Your task to perform on an android device: Search for Mexican restaurants on Maps Image 0: 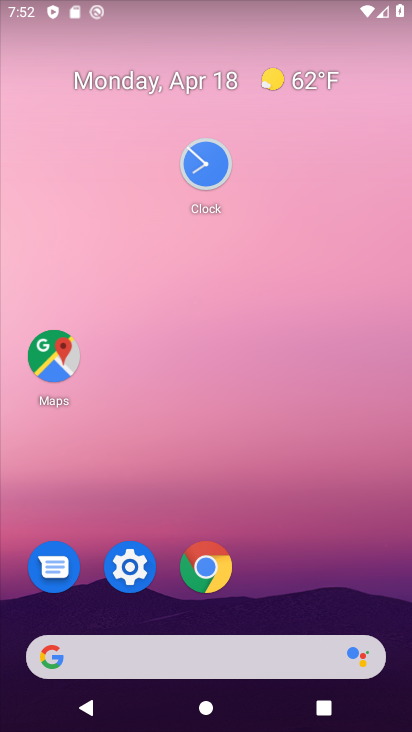
Step 0: drag from (308, 610) to (208, 7)
Your task to perform on an android device: Search for Mexican restaurants on Maps Image 1: 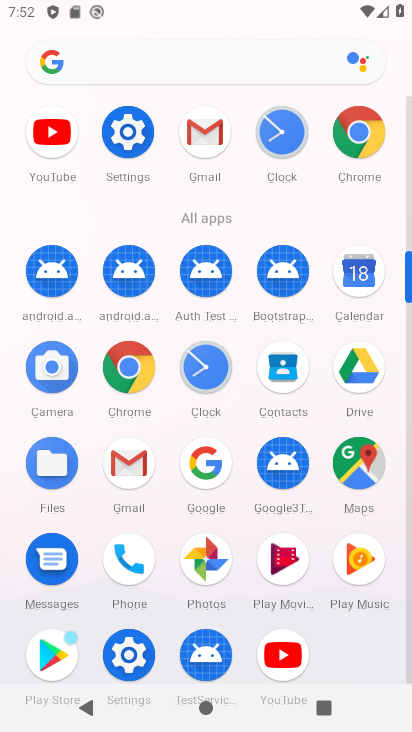
Step 1: click (363, 464)
Your task to perform on an android device: Search for Mexican restaurants on Maps Image 2: 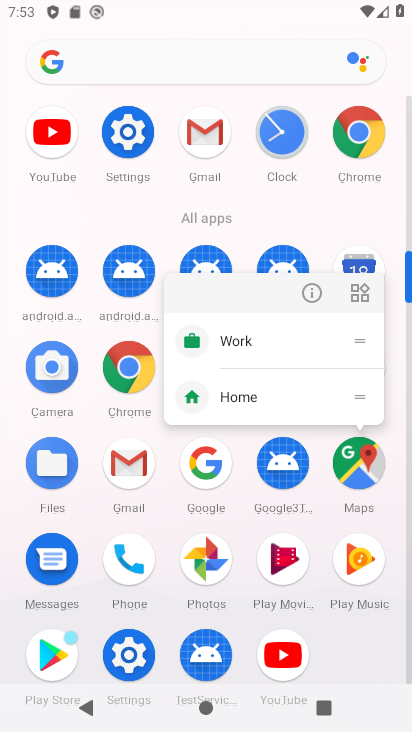
Step 2: click (276, 190)
Your task to perform on an android device: Search for Mexican restaurants on Maps Image 3: 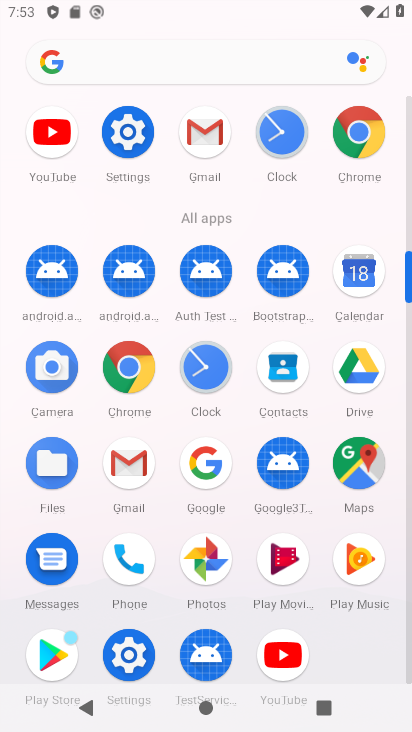
Step 3: click (366, 466)
Your task to perform on an android device: Search for Mexican restaurants on Maps Image 4: 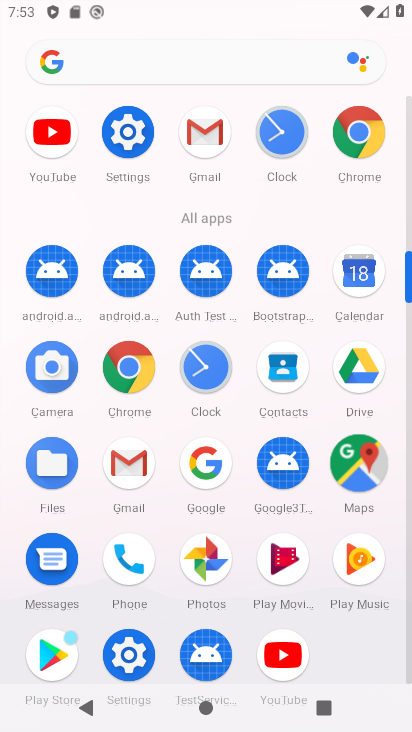
Step 4: click (366, 466)
Your task to perform on an android device: Search for Mexican restaurants on Maps Image 5: 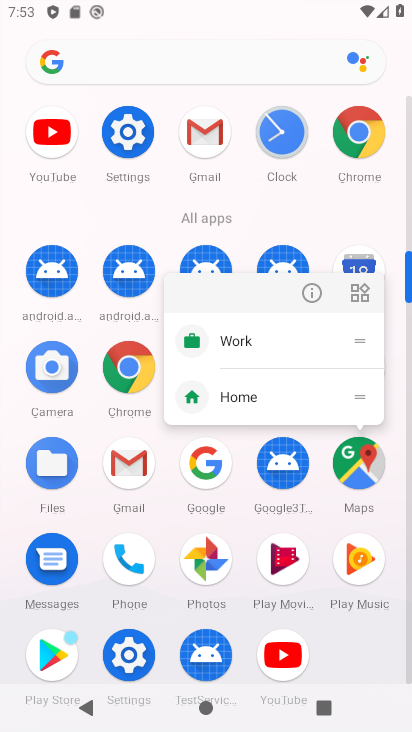
Step 5: click (304, 210)
Your task to perform on an android device: Search for Mexican restaurants on Maps Image 6: 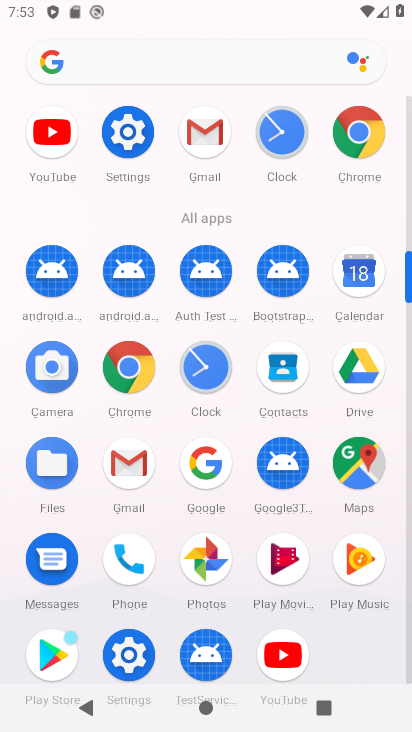
Step 6: click (357, 458)
Your task to perform on an android device: Search for Mexican restaurants on Maps Image 7: 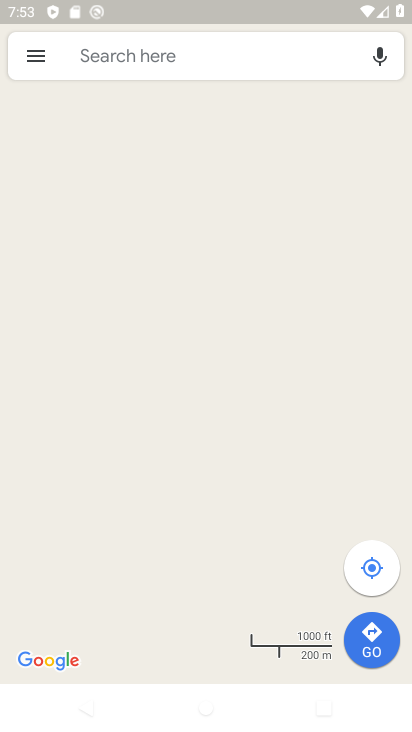
Step 7: click (98, 57)
Your task to perform on an android device: Search for Mexican restaurants on Maps Image 8: 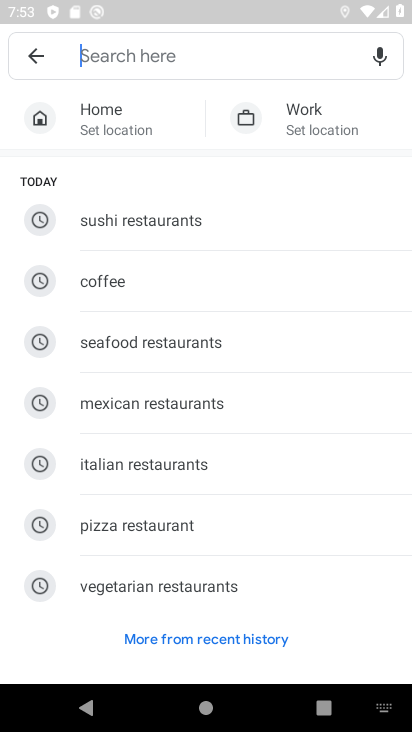
Step 8: click (156, 398)
Your task to perform on an android device: Search for Mexican restaurants on Maps Image 9: 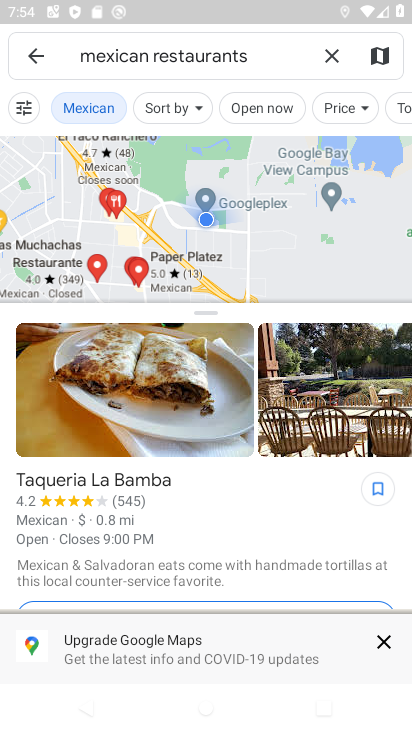
Step 9: task complete